Your task to perform on an android device: What's on my calendar tomorrow? Image 0: 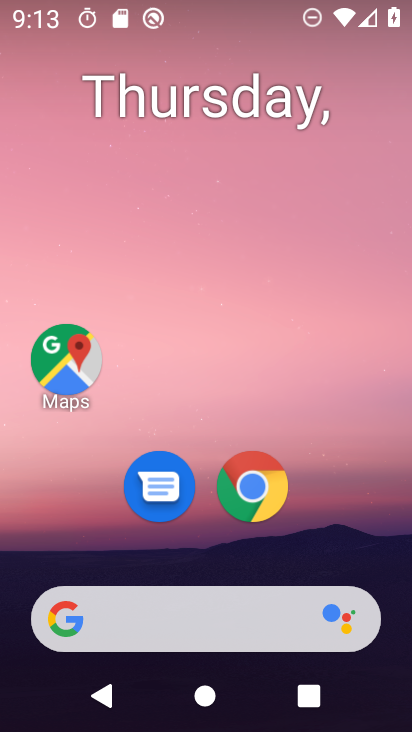
Step 0: drag from (174, 550) to (242, 10)
Your task to perform on an android device: What's on my calendar tomorrow? Image 1: 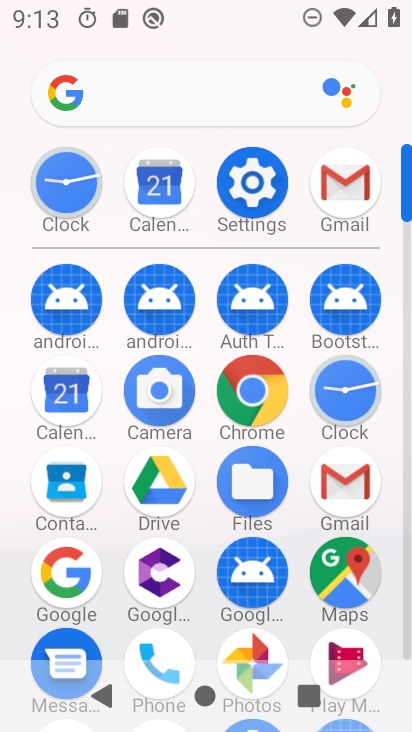
Step 1: click (65, 388)
Your task to perform on an android device: What's on my calendar tomorrow? Image 2: 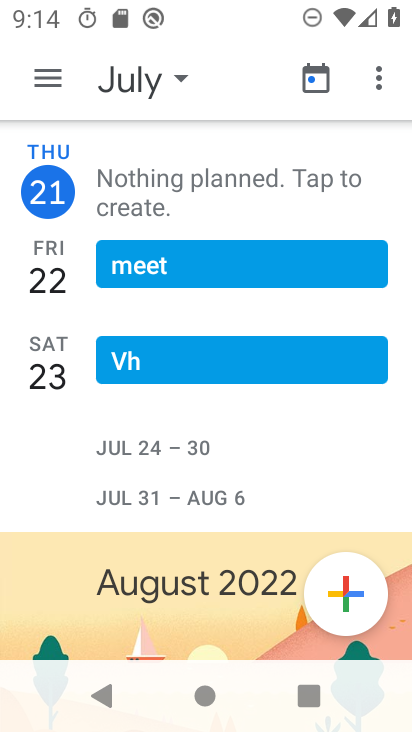
Step 2: task complete